Your task to perform on an android device: Open Amazon Image 0: 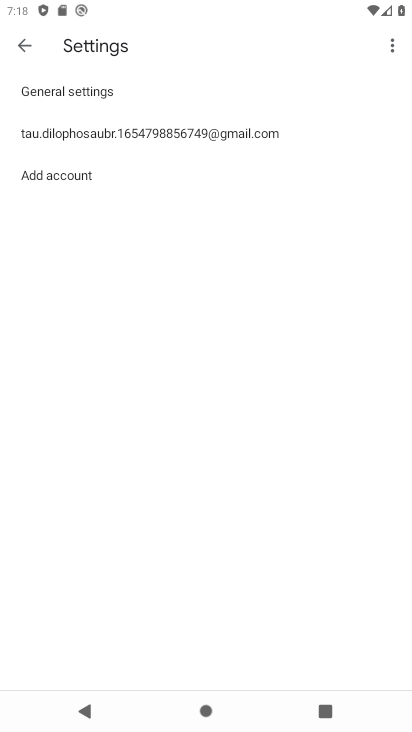
Step 0: press home button
Your task to perform on an android device: Open Amazon Image 1: 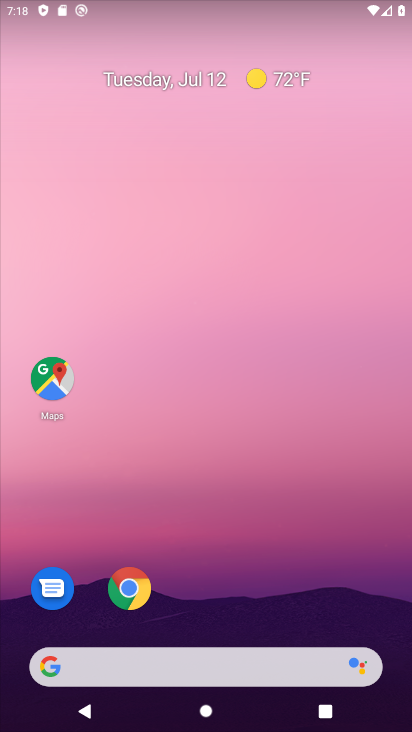
Step 1: drag from (340, 448) to (375, 42)
Your task to perform on an android device: Open Amazon Image 2: 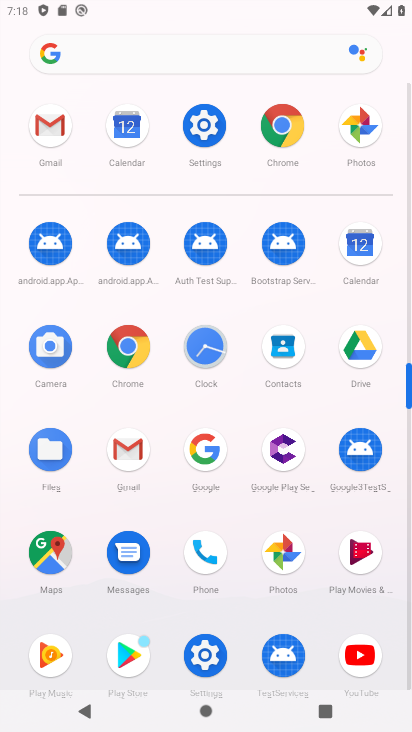
Step 2: click (278, 142)
Your task to perform on an android device: Open Amazon Image 3: 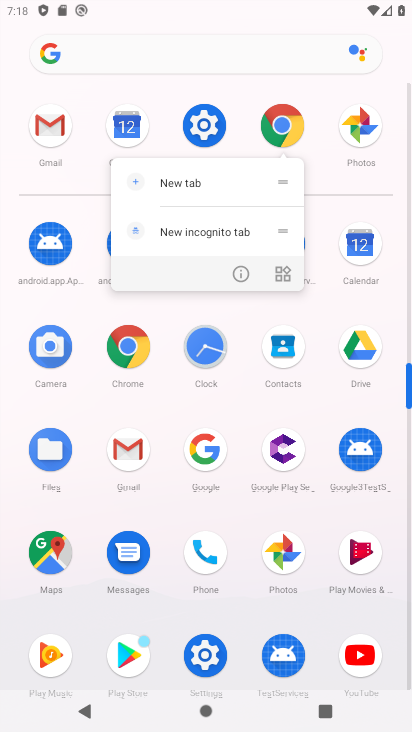
Step 3: click (278, 144)
Your task to perform on an android device: Open Amazon Image 4: 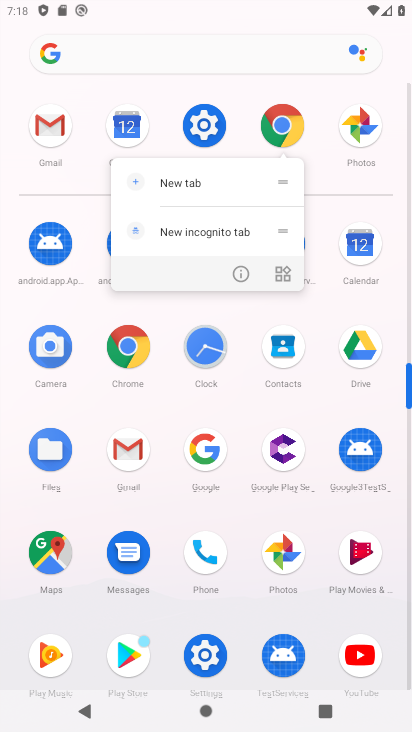
Step 4: click (279, 144)
Your task to perform on an android device: Open Amazon Image 5: 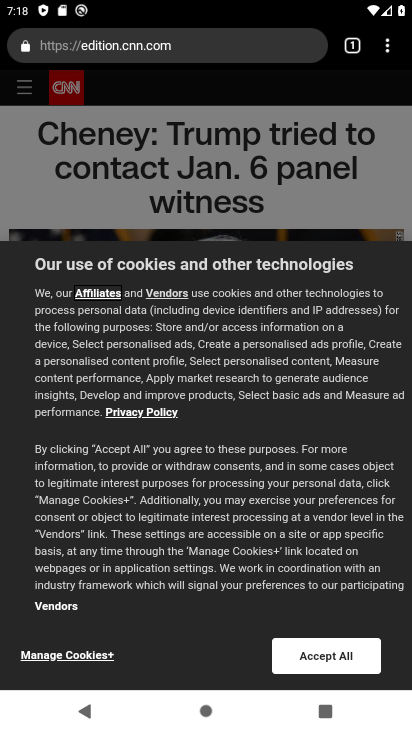
Step 5: click (108, 44)
Your task to perform on an android device: Open Amazon Image 6: 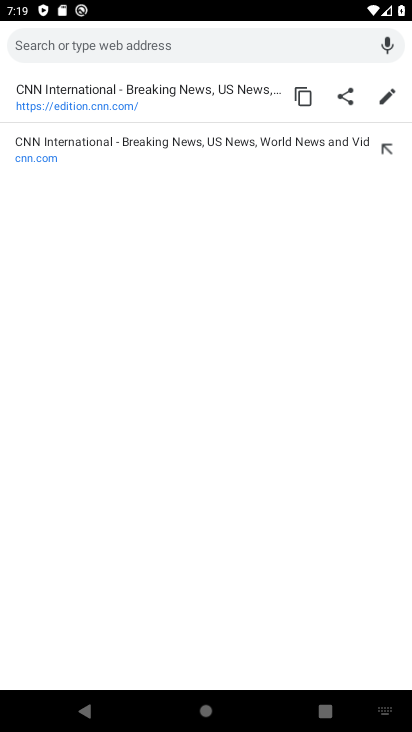
Step 6: type "Amazon"
Your task to perform on an android device: Open Amazon Image 7: 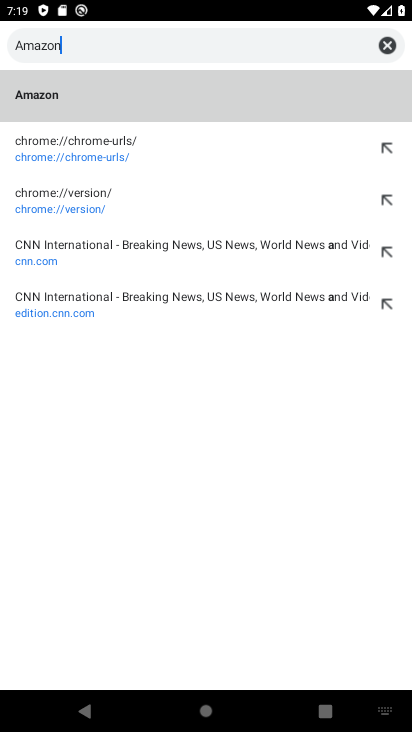
Step 7: press enter
Your task to perform on an android device: Open Amazon Image 8: 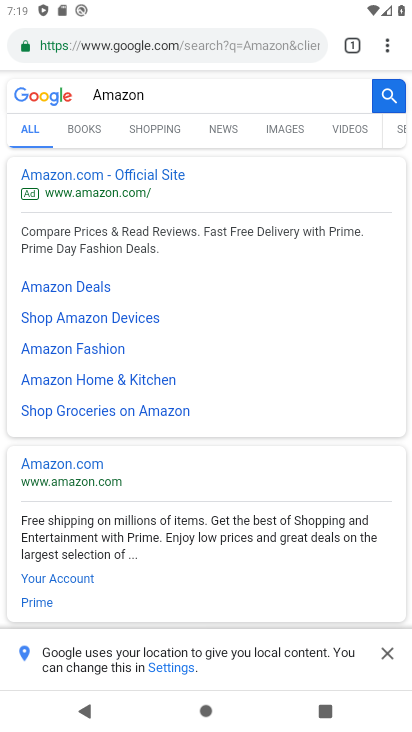
Step 8: click (107, 176)
Your task to perform on an android device: Open Amazon Image 9: 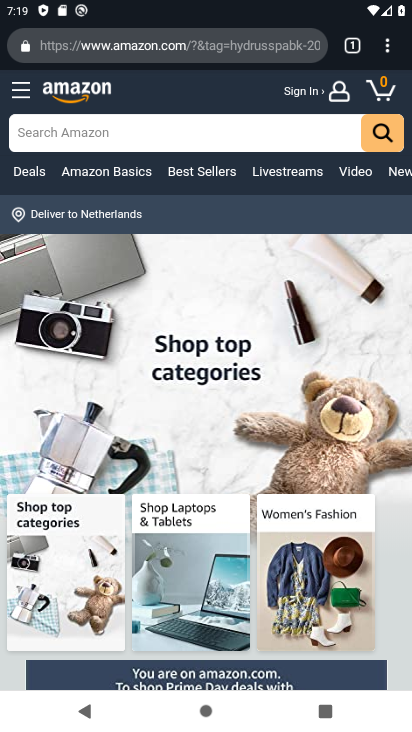
Step 9: task complete